Your task to perform on an android device: Open accessibility settings Image 0: 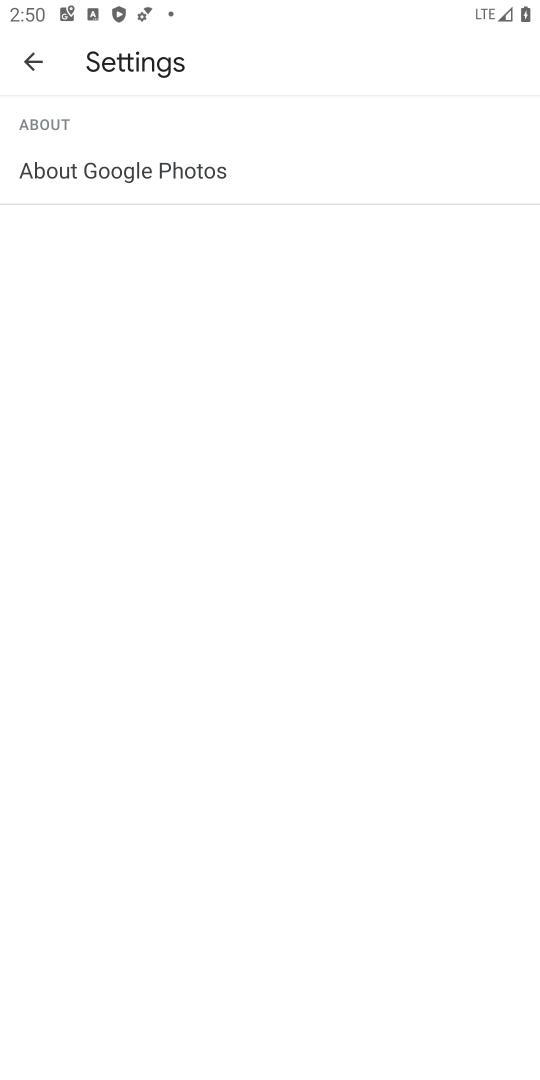
Step 0: press home button
Your task to perform on an android device: Open accessibility settings Image 1: 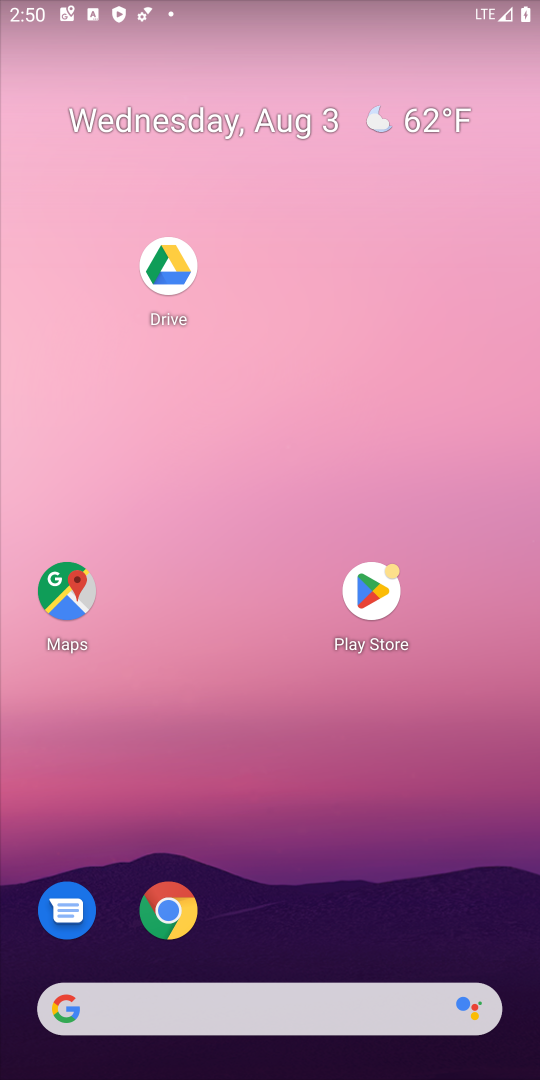
Step 1: drag from (364, 997) to (448, 0)
Your task to perform on an android device: Open accessibility settings Image 2: 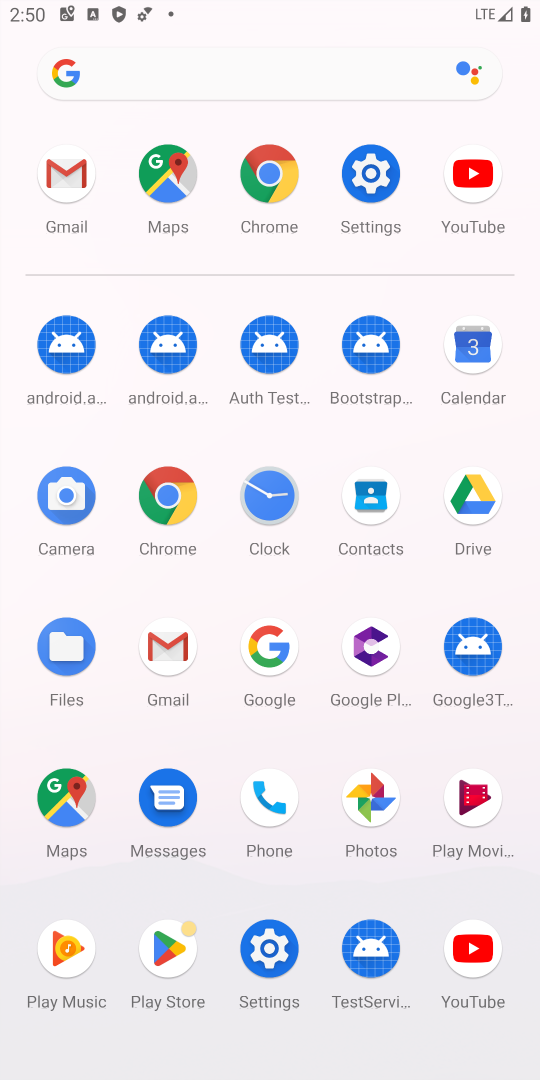
Step 2: click (383, 161)
Your task to perform on an android device: Open accessibility settings Image 3: 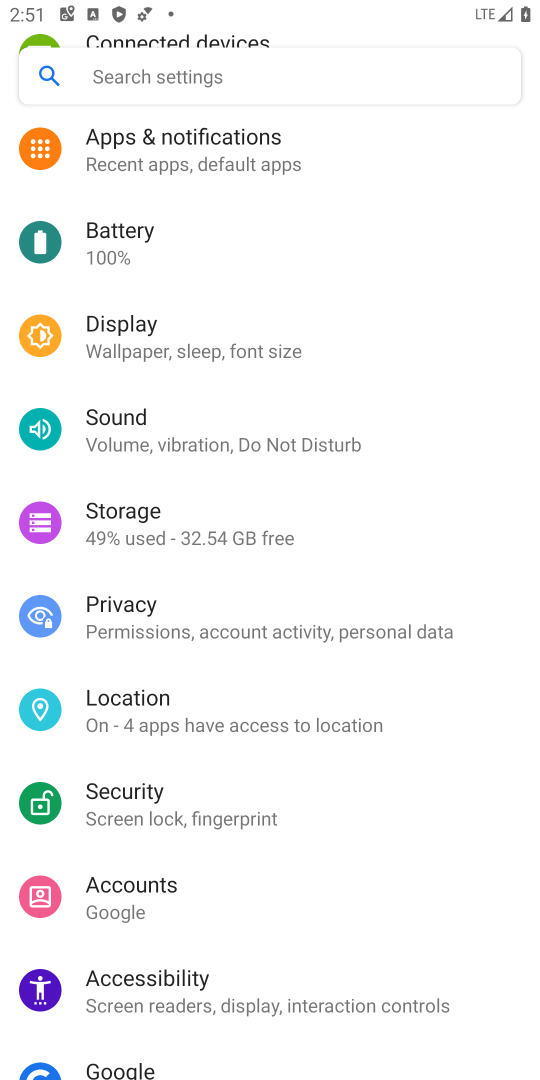
Step 3: click (215, 970)
Your task to perform on an android device: Open accessibility settings Image 4: 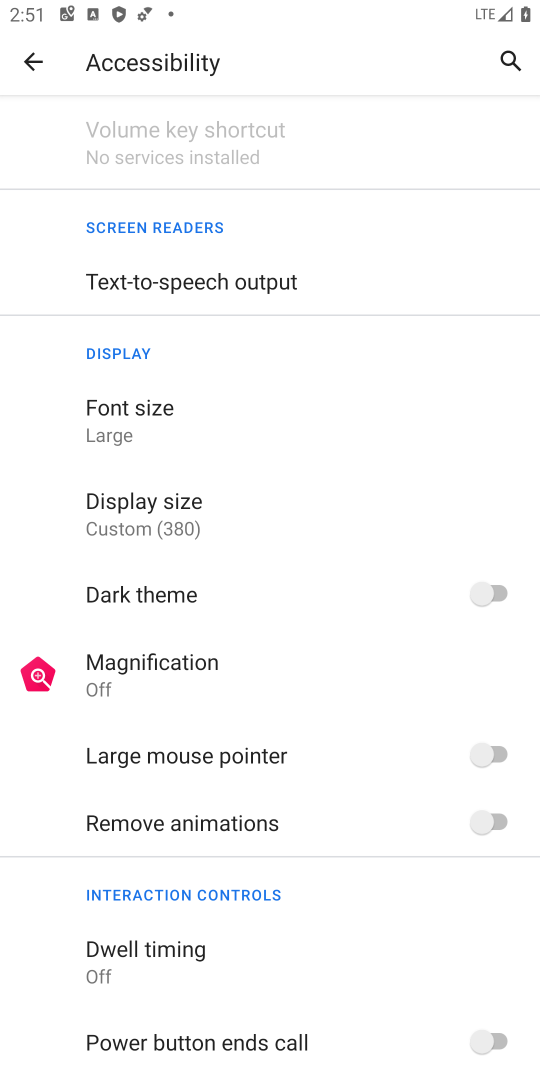
Step 4: task complete